Your task to perform on an android device: turn pop-ups on in chrome Image 0: 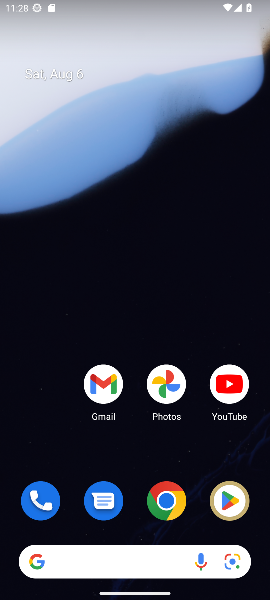
Step 0: click (167, 509)
Your task to perform on an android device: turn pop-ups on in chrome Image 1: 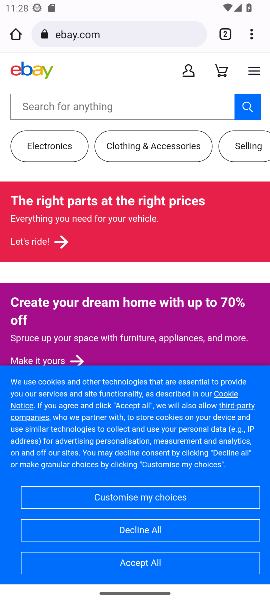
Step 1: click (253, 32)
Your task to perform on an android device: turn pop-ups on in chrome Image 2: 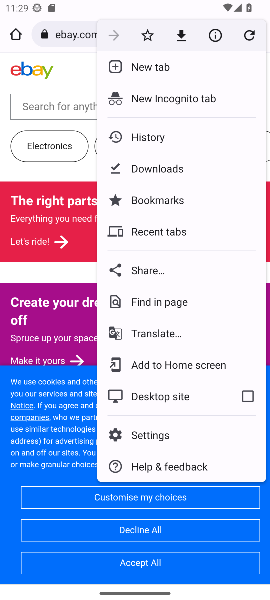
Step 2: click (170, 434)
Your task to perform on an android device: turn pop-ups on in chrome Image 3: 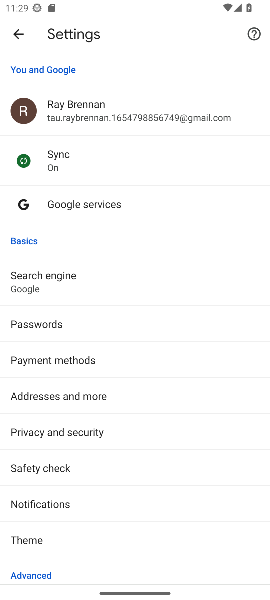
Step 3: drag from (90, 381) to (136, 217)
Your task to perform on an android device: turn pop-ups on in chrome Image 4: 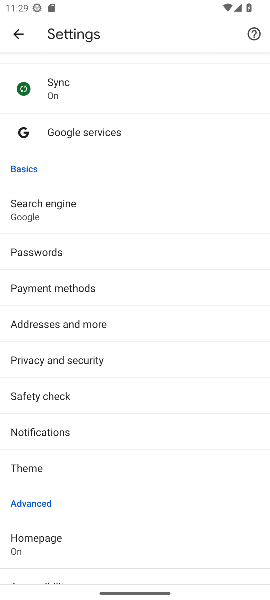
Step 4: drag from (86, 493) to (152, 74)
Your task to perform on an android device: turn pop-ups on in chrome Image 5: 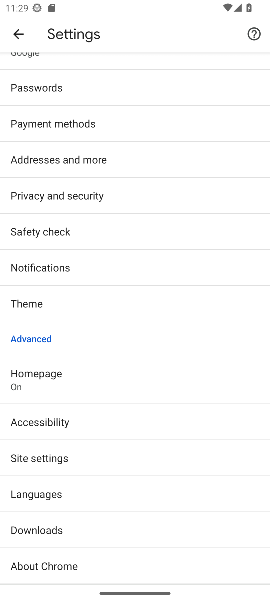
Step 5: click (34, 459)
Your task to perform on an android device: turn pop-ups on in chrome Image 6: 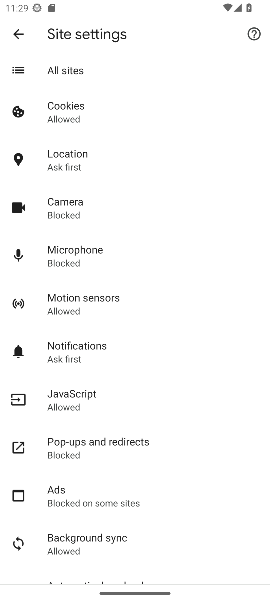
Step 6: click (67, 456)
Your task to perform on an android device: turn pop-ups on in chrome Image 7: 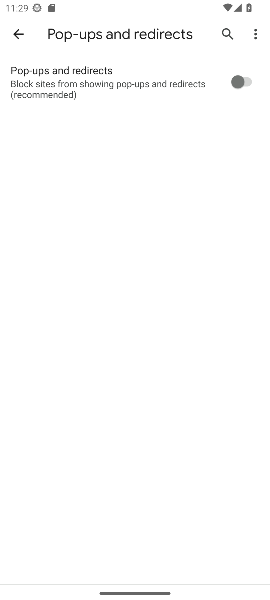
Step 7: click (249, 84)
Your task to perform on an android device: turn pop-ups on in chrome Image 8: 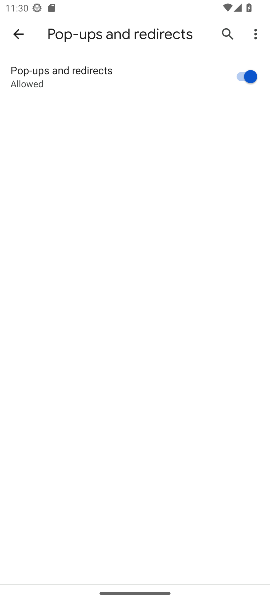
Step 8: task complete